Your task to perform on an android device: change the clock display to analog Image 0: 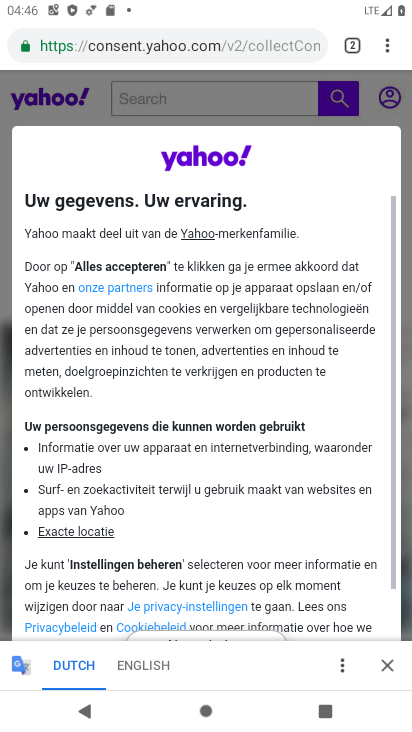
Step 0: press back button
Your task to perform on an android device: change the clock display to analog Image 1: 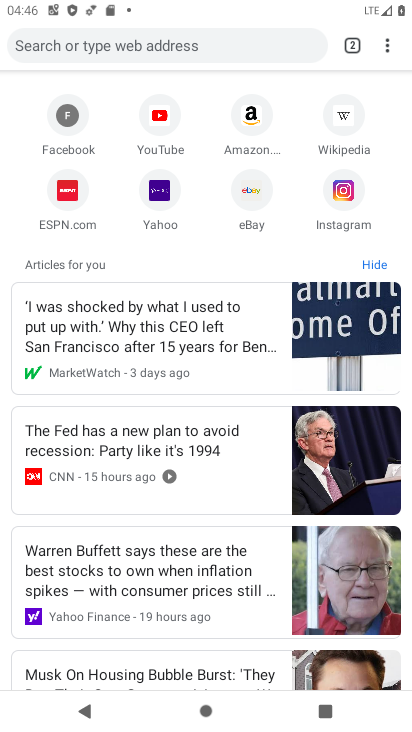
Step 1: press back button
Your task to perform on an android device: change the clock display to analog Image 2: 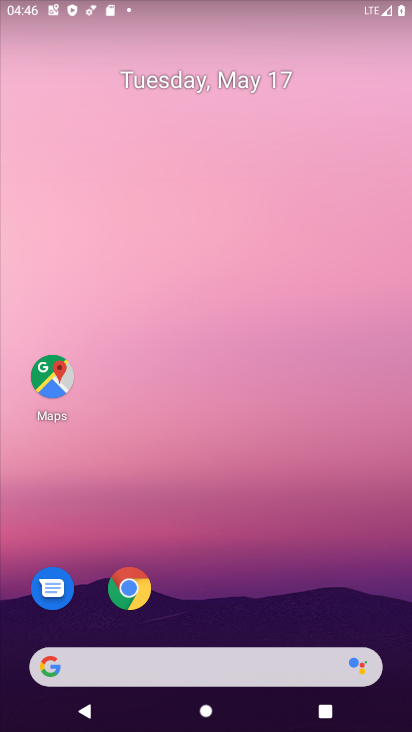
Step 2: drag from (224, 581) to (234, 115)
Your task to perform on an android device: change the clock display to analog Image 3: 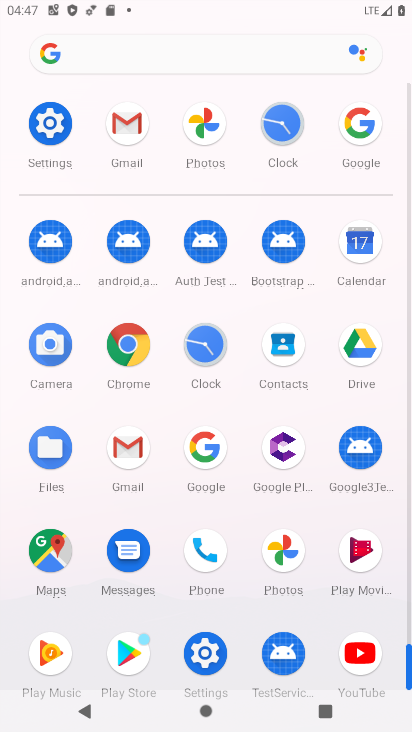
Step 3: click (282, 123)
Your task to perform on an android device: change the clock display to analog Image 4: 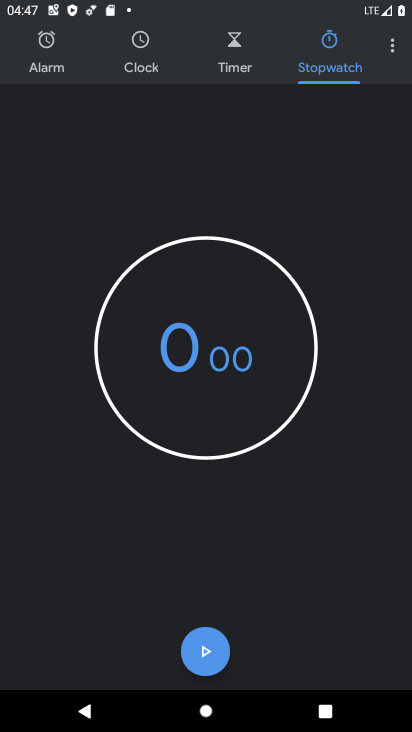
Step 4: click (395, 48)
Your task to perform on an android device: change the clock display to analog Image 5: 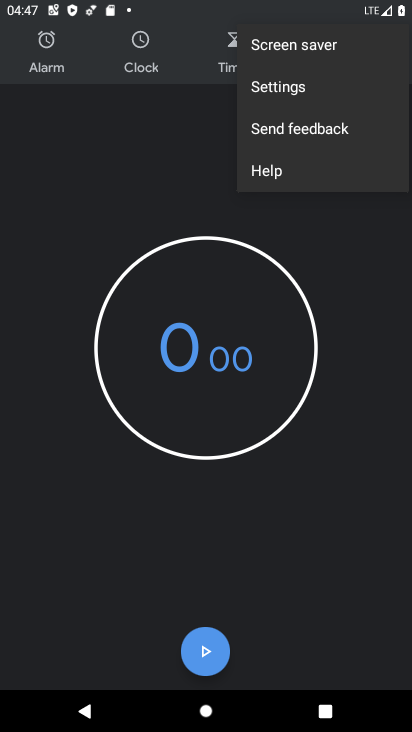
Step 5: click (300, 84)
Your task to perform on an android device: change the clock display to analog Image 6: 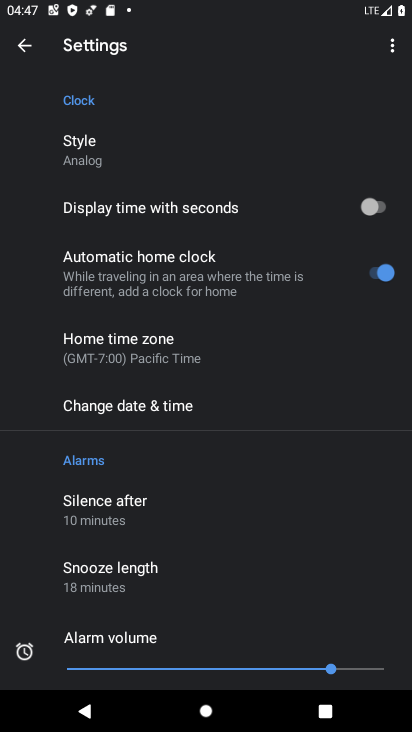
Step 6: click (106, 149)
Your task to perform on an android device: change the clock display to analog Image 7: 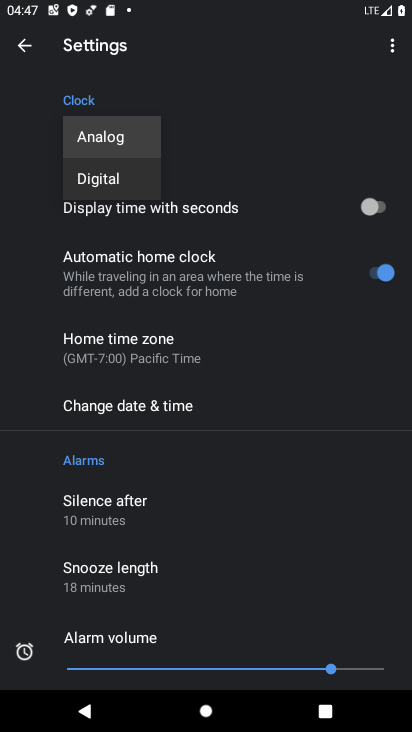
Step 7: click (105, 142)
Your task to perform on an android device: change the clock display to analog Image 8: 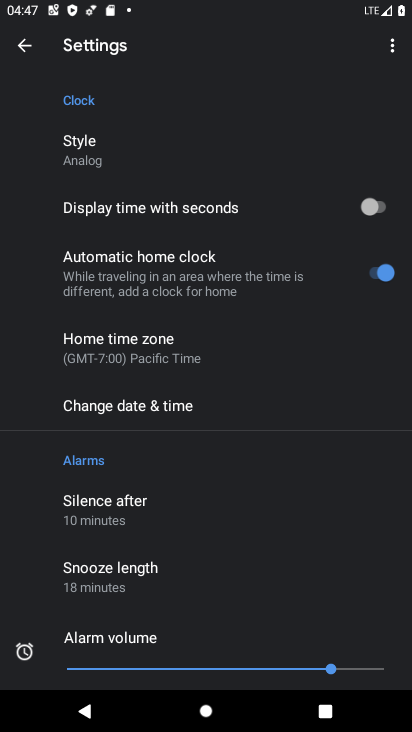
Step 8: task complete